Your task to perform on an android device: turn on sleep mode Image 0: 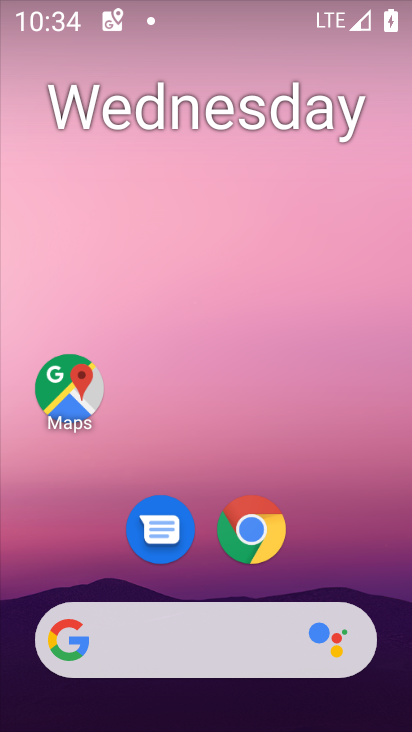
Step 0: drag from (399, 620) to (319, 35)
Your task to perform on an android device: turn on sleep mode Image 1: 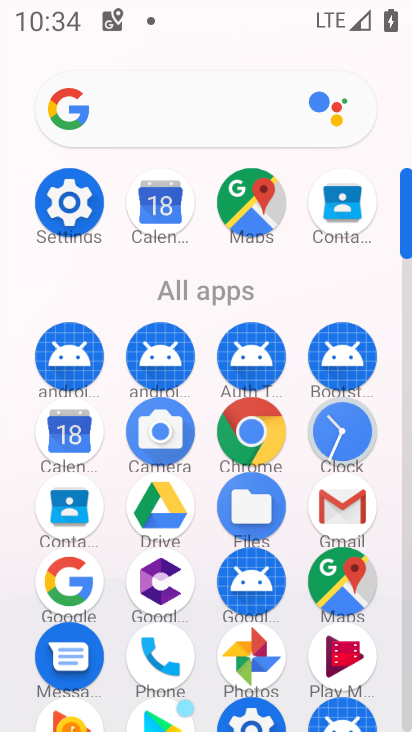
Step 1: click (409, 703)
Your task to perform on an android device: turn on sleep mode Image 2: 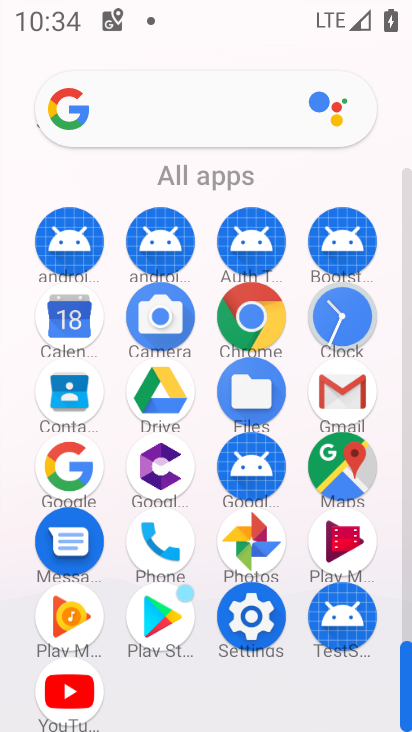
Step 2: click (252, 618)
Your task to perform on an android device: turn on sleep mode Image 3: 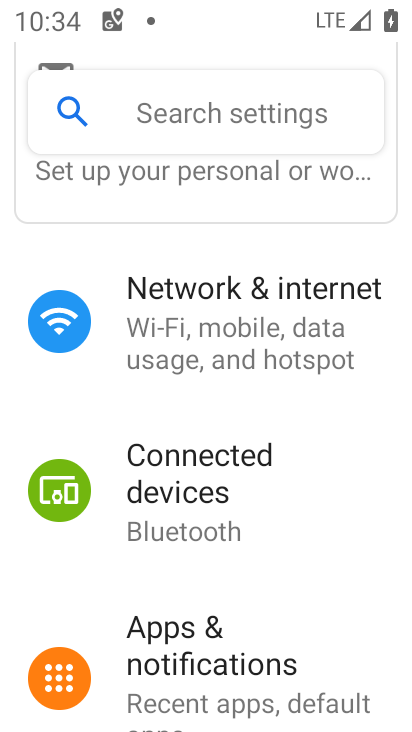
Step 3: drag from (348, 688) to (385, 216)
Your task to perform on an android device: turn on sleep mode Image 4: 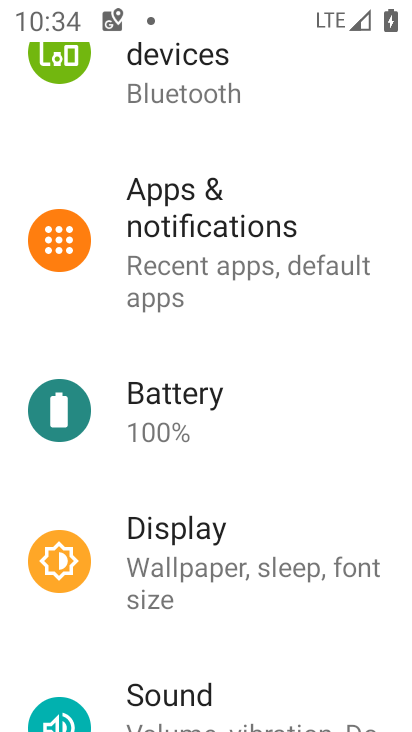
Step 4: click (193, 550)
Your task to perform on an android device: turn on sleep mode Image 5: 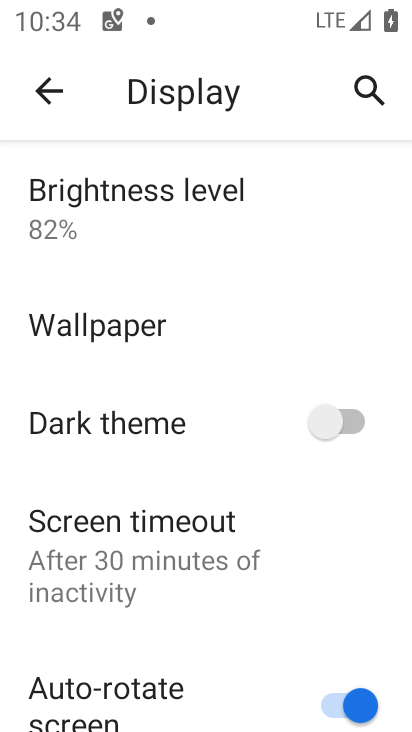
Step 5: drag from (248, 629) to (252, 266)
Your task to perform on an android device: turn on sleep mode Image 6: 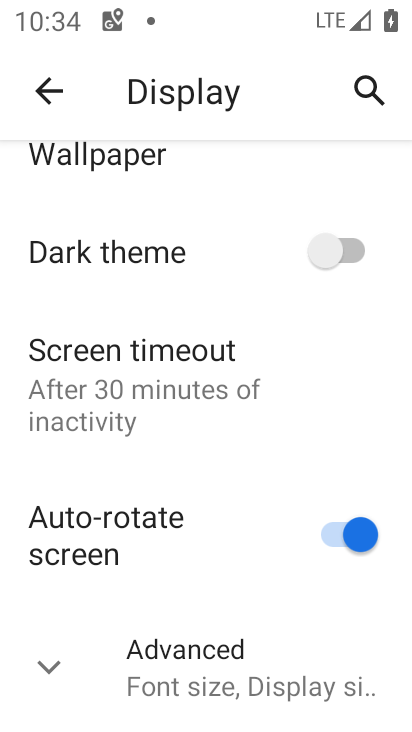
Step 6: click (46, 665)
Your task to perform on an android device: turn on sleep mode Image 7: 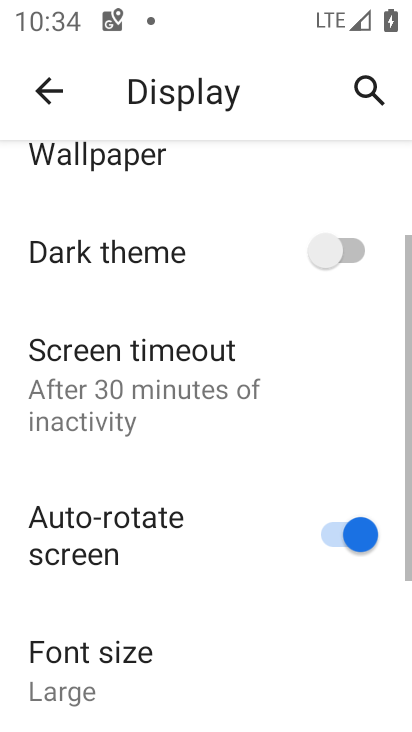
Step 7: task complete